Your task to perform on an android device: Search for 8K TVs on Best Buy. Image 0: 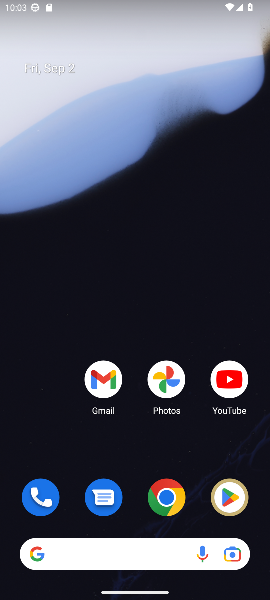
Step 0: drag from (127, 290) to (68, 11)
Your task to perform on an android device: Search for 8K TVs on Best Buy. Image 1: 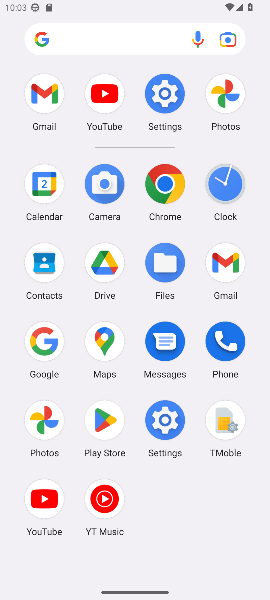
Step 1: click (43, 347)
Your task to perform on an android device: Search for 8K TVs on Best Buy. Image 2: 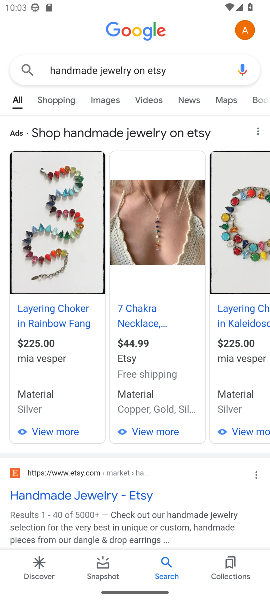
Step 2: task complete